Your task to perform on an android device: choose inbox layout in the gmail app Image 0: 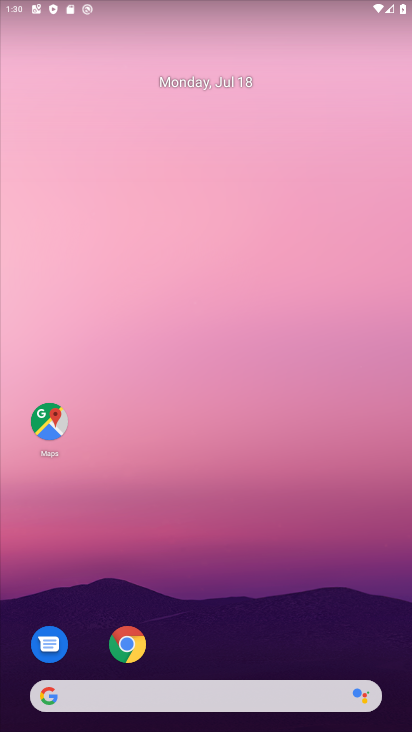
Step 0: drag from (273, 641) to (271, 120)
Your task to perform on an android device: choose inbox layout in the gmail app Image 1: 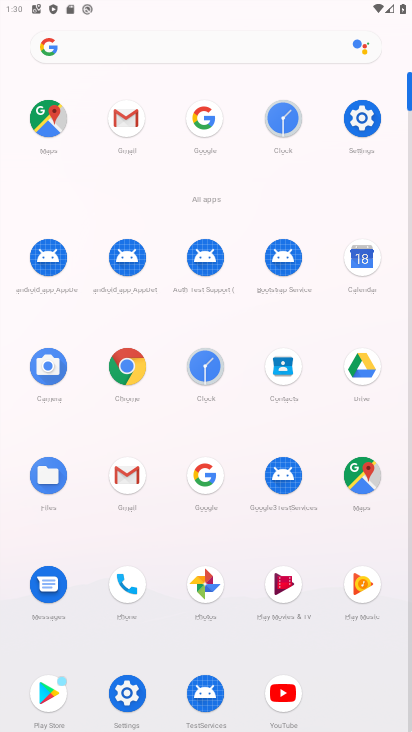
Step 1: click (121, 469)
Your task to perform on an android device: choose inbox layout in the gmail app Image 2: 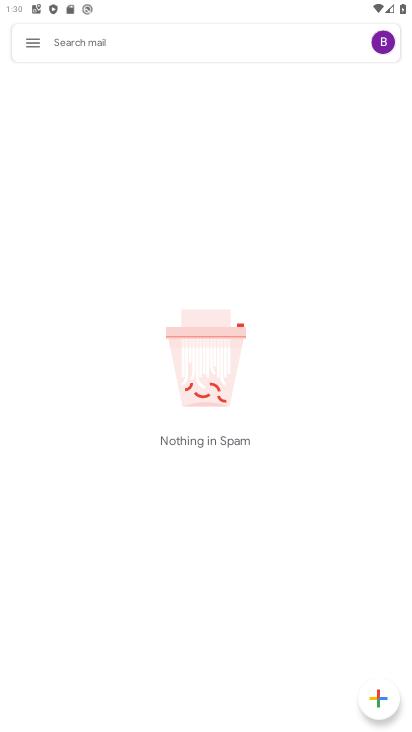
Step 2: click (36, 43)
Your task to perform on an android device: choose inbox layout in the gmail app Image 3: 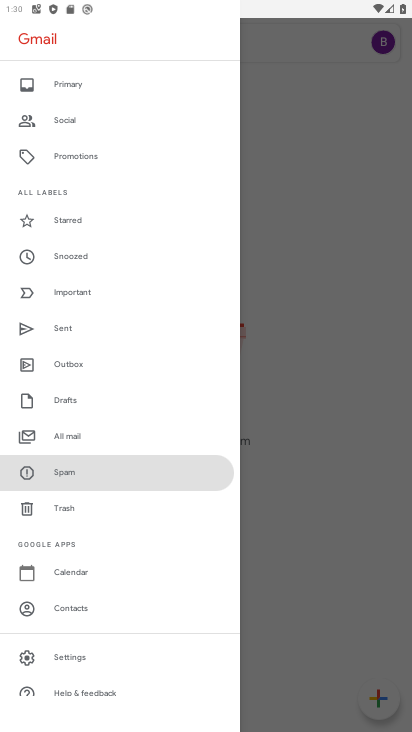
Step 3: click (108, 667)
Your task to perform on an android device: choose inbox layout in the gmail app Image 4: 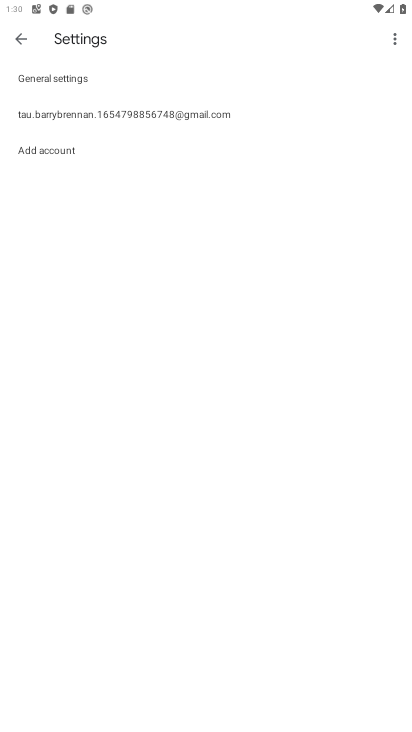
Step 4: click (74, 114)
Your task to perform on an android device: choose inbox layout in the gmail app Image 5: 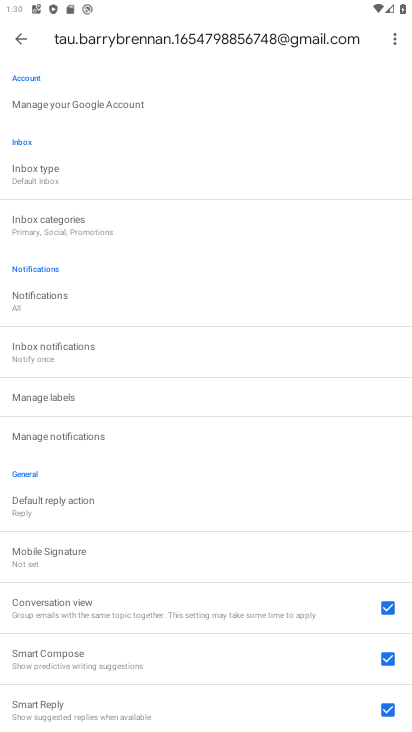
Step 5: click (63, 179)
Your task to perform on an android device: choose inbox layout in the gmail app Image 6: 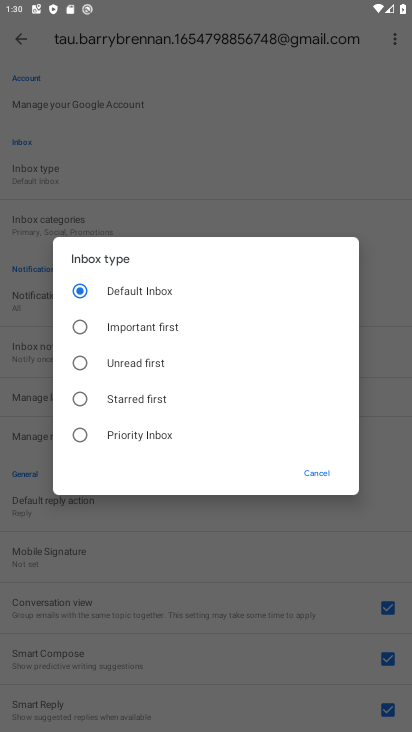
Step 6: click (74, 312)
Your task to perform on an android device: choose inbox layout in the gmail app Image 7: 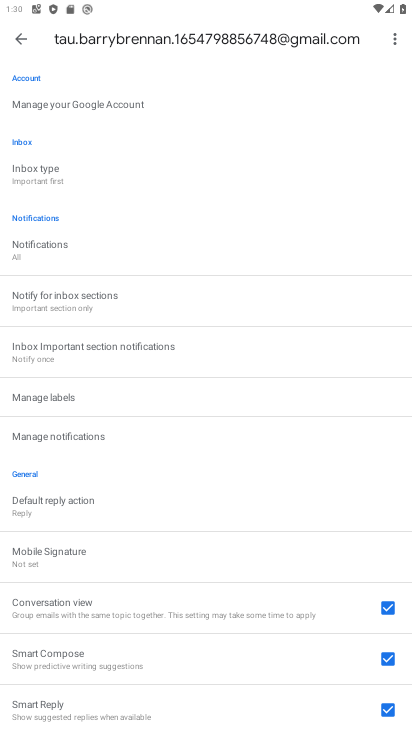
Step 7: task complete